Your task to perform on an android device: see tabs open on other devices in the chrome app Image 0: 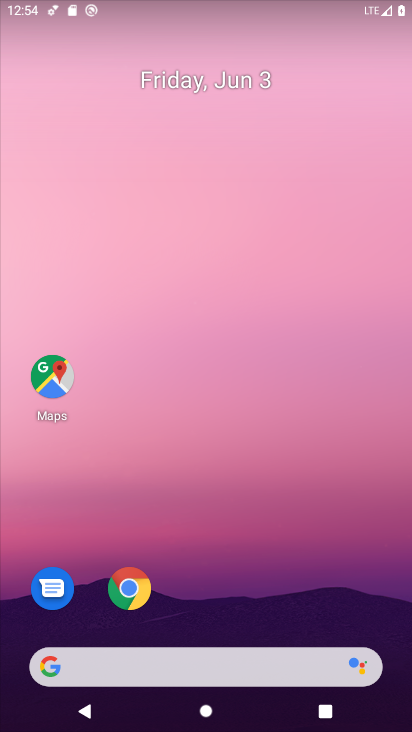
Step 0: drag from (237, 621) to (180, 201)
Your task to perform on an android device: see tabs open on other devices in the chrome app Image 1: 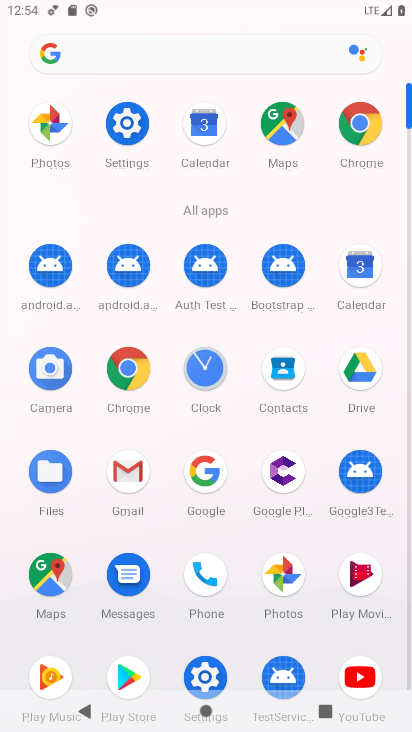
Step 1: click (365, 124)
Your task to perform on an android device: see tabs open on other devices in the chrome app Image 2: 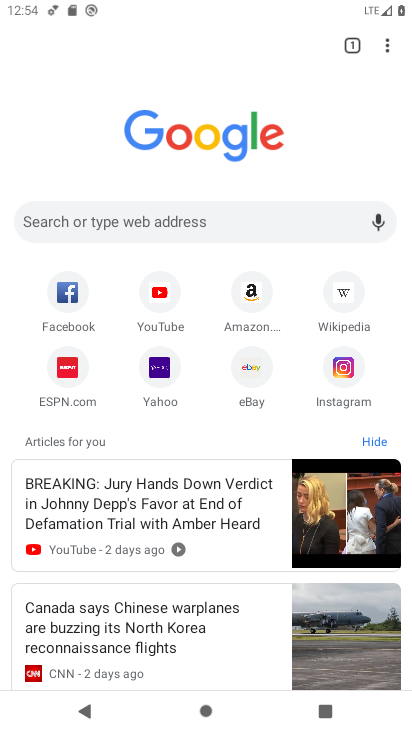
Step 2: click (394, 39)
Your task to perform on an android device: see tabs open on other devices in the chrome app Image 3: 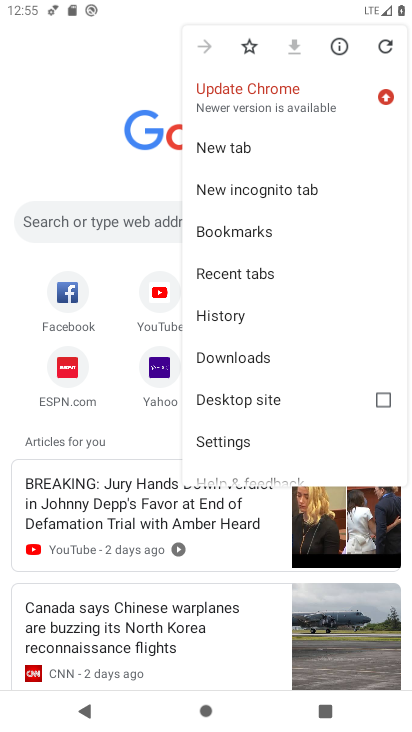
Step 3: click (269, 279)
Your task to perform on an android device: see tabs open on other devices in the chrome app Image 4: 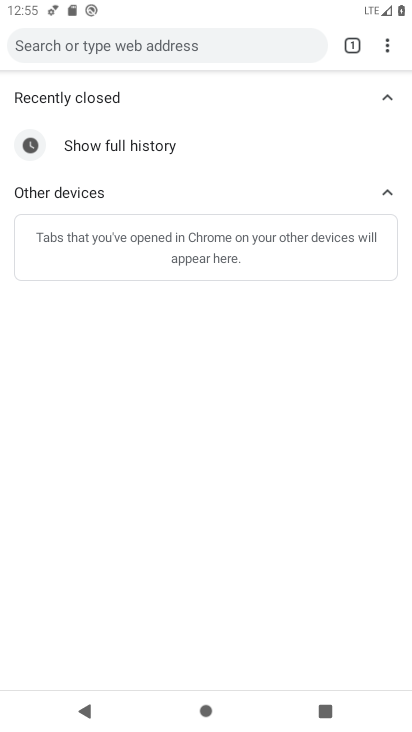
Step 4: task complete